Your task to perform on an android device: Open Chrome and go to settings Image 0: 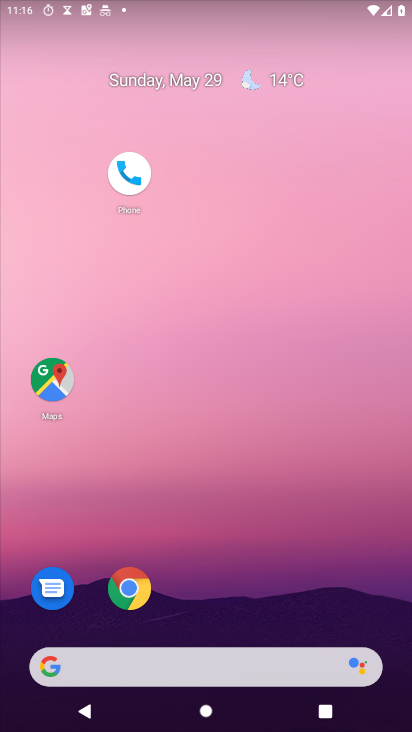
Step 0: drag from (280, 713) to (153, 176)
Your task to perform on an android device: Open Chrome and go to settings Image 1: 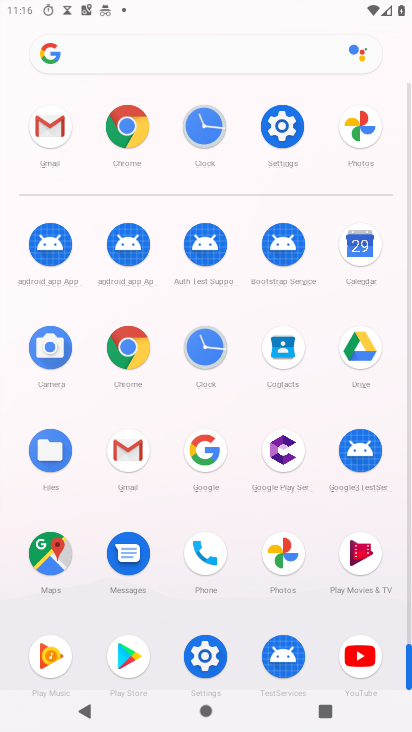
Step 1: click (125, 131)
Your task to perform on an android device: Open Chrome and go to settings Image 2: 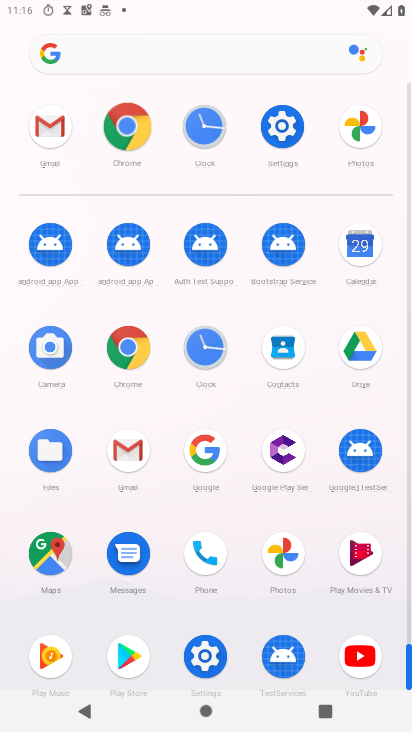
Step 2: click (127, 129)
Your task to perform on an android device: Open Chrome and go to settings Image 3: 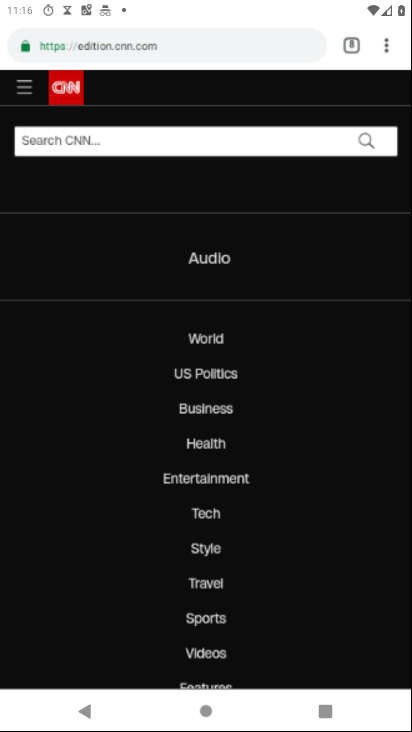
Step 3: click (137, 130)
Your task to perform on an android device: Open Chrome and go to settings Image 4: 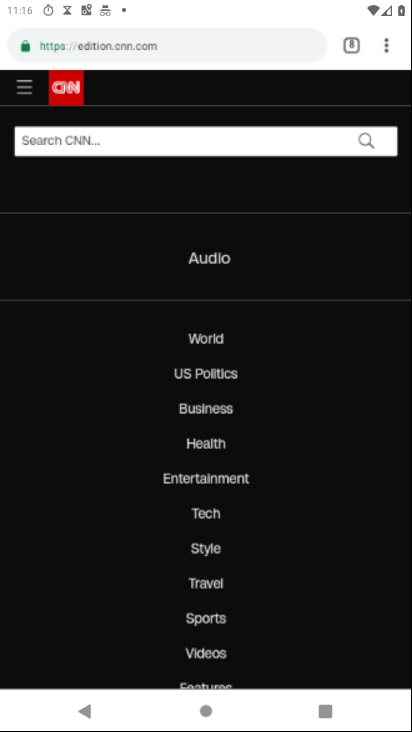
Step 4: click (139, 130)
Your task to perform on an android device: Open Chrome and go to settings Image 5: 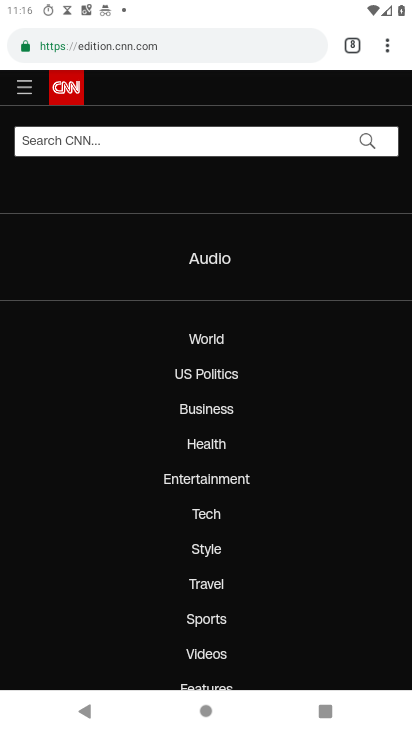
Step 5: click (387, 51)
Your task to perform on an android device: Open Chrome and go to settings Image 6: 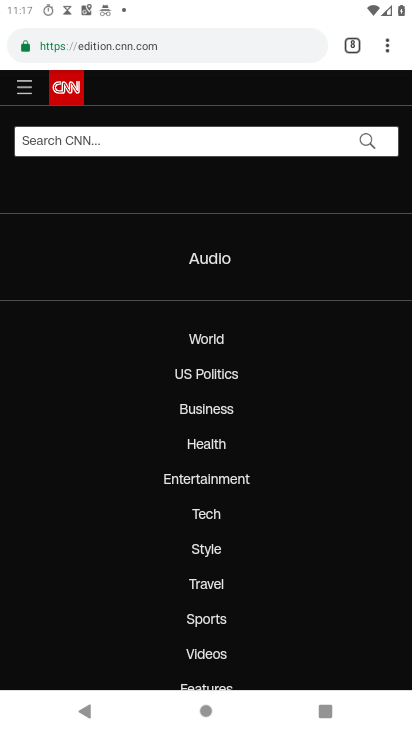
Step 6: click (386, 46)
Your task to perform on an android device: Open Chrome and go to settings Image 7: 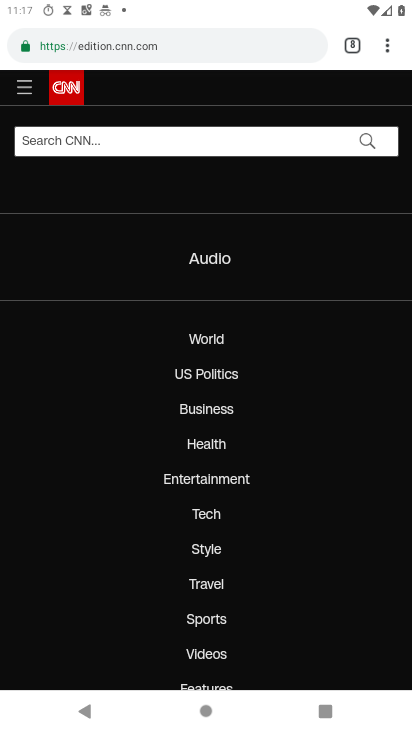
Step 7: click (386, 46)
Your task to perform on an android device: Open Chrome and go to settings Image 8: 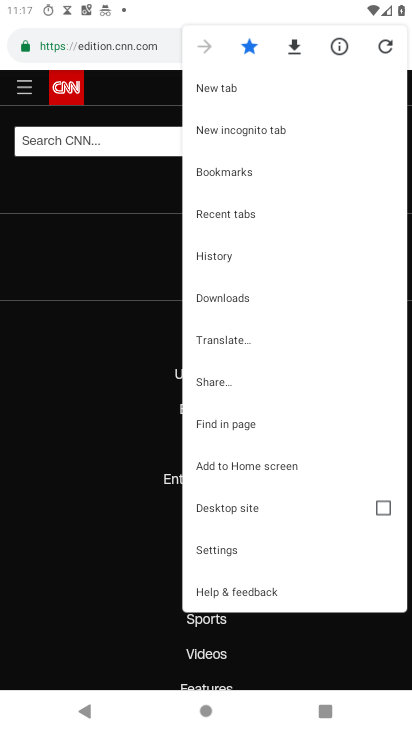
Step 8: click (387, 45)
Your task to perform on an android device: Open Chrome and go to settings Image 9: 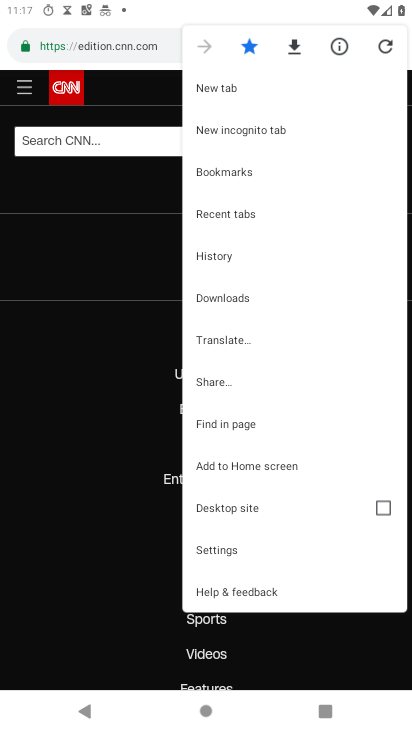
Step 9: click (217, 556)
Your task to perform on an android device: Open Chrome and go to settings Image 10: 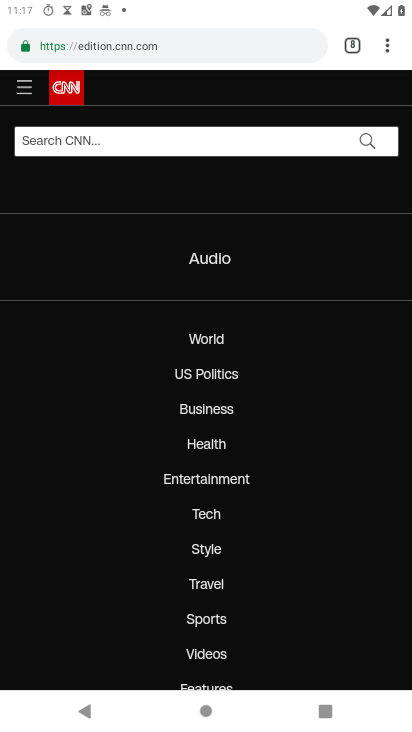
Step 10: click (222, 541)
Your task to perform on an android device: Open Chrome and go to settings Image 11: 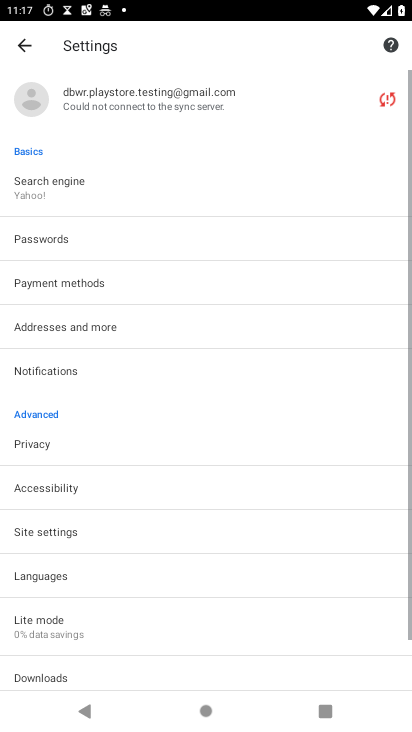
Step 11: click (222, 541)
Your task to perform on an android device: Open Chrome and go to settings Image 12: 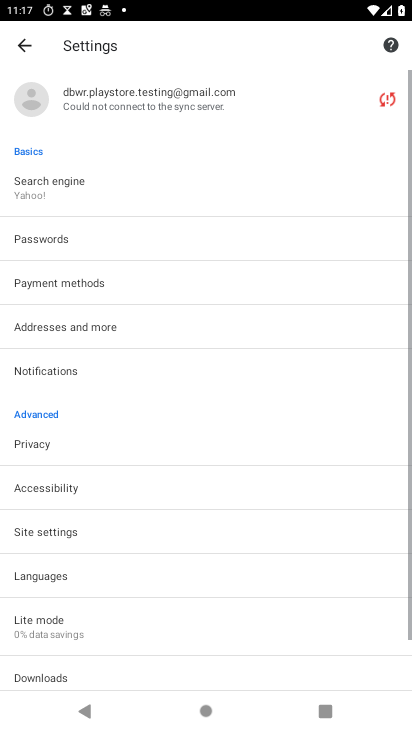
Step 12: click (223, 541)
Your task to perform on an android device: Open Chrome and go to settings Image 13: 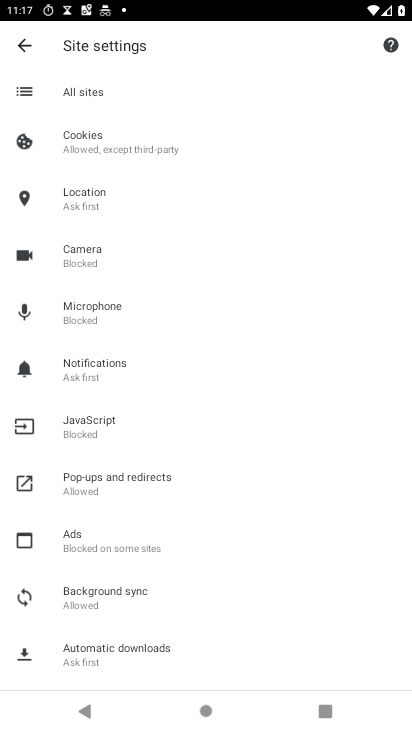
Step 13: drag from (120, 594) to (76, 186)
Your task to perform on an android device: Open Chrome and go to settings Image 14: 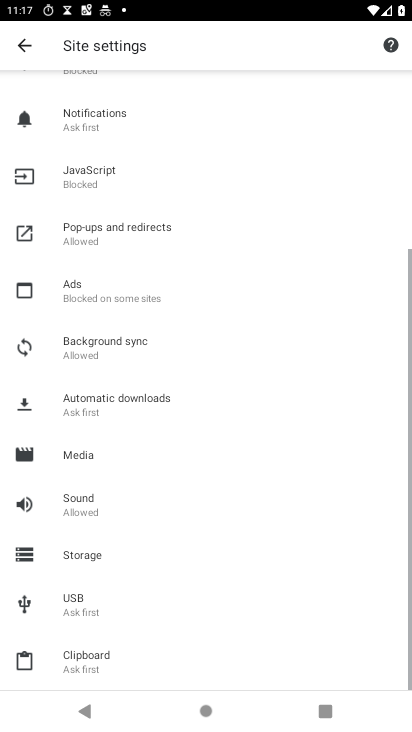
Step 14: drag from (172, 536) to (117, 153)
Your task to perform on an android device: Open Chrome and go to settings Image 15: 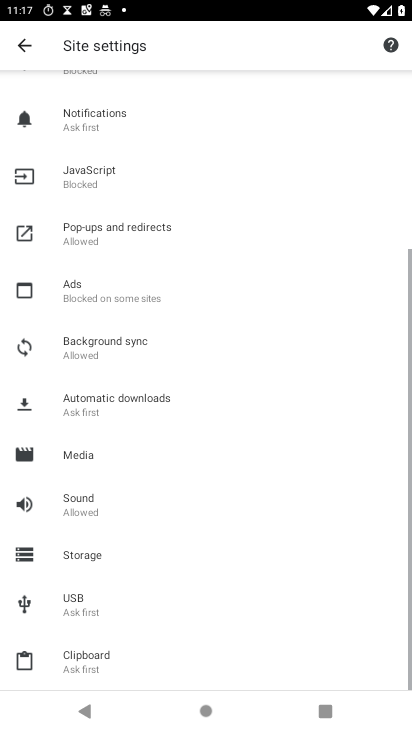
Step 15: drag from (136, 525) to (37, 222)
Your task to perform on an android device: Open Chrome and go to settings Image 16: 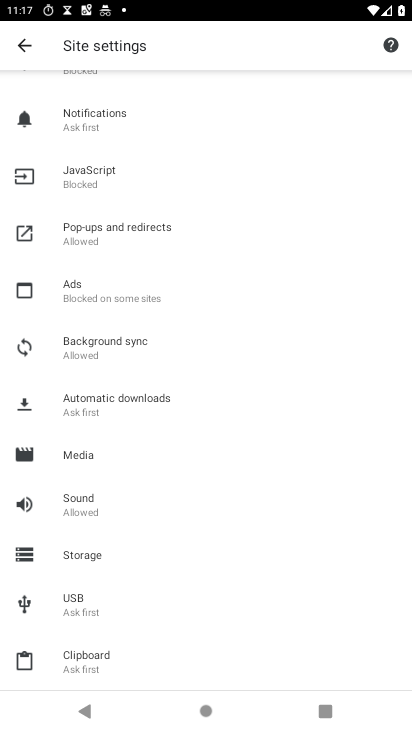
Step 16: drag from (113, 377) to (156, 574)
Your task to perform on an android device: Open Chrome and go to settings Image 17: 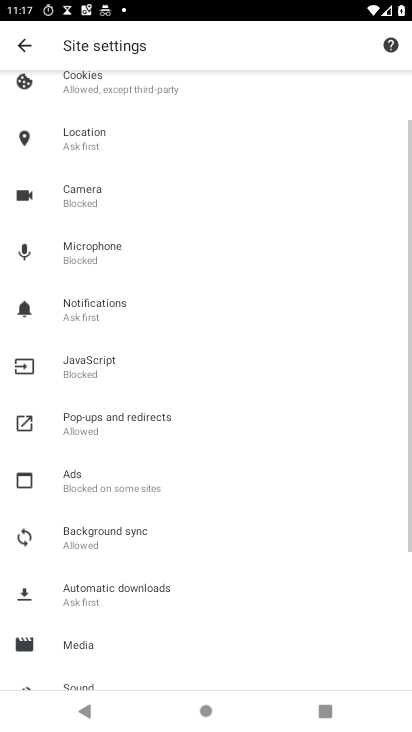
Step 17: click (116, 621)
Your task to perform on an android device: Open Chrome and go to settings Image 18: 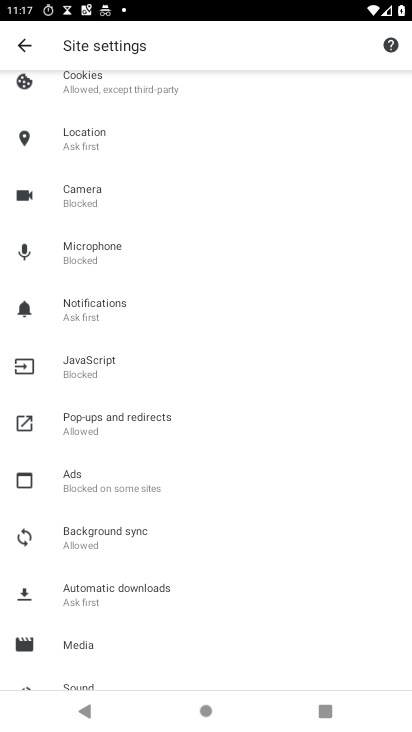
Step 18: drag from (131, 530) to (127, 641)
Your task to perform on an android device: Open Chrome and go to settings Image 19: 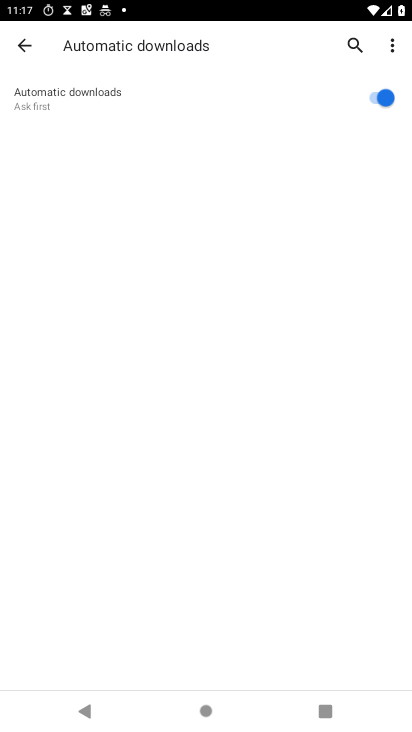
Step 19: drag from (62, 328) to (153, 689)
Your task to perform on an android device: Open Chrome and go to settings Image 20: 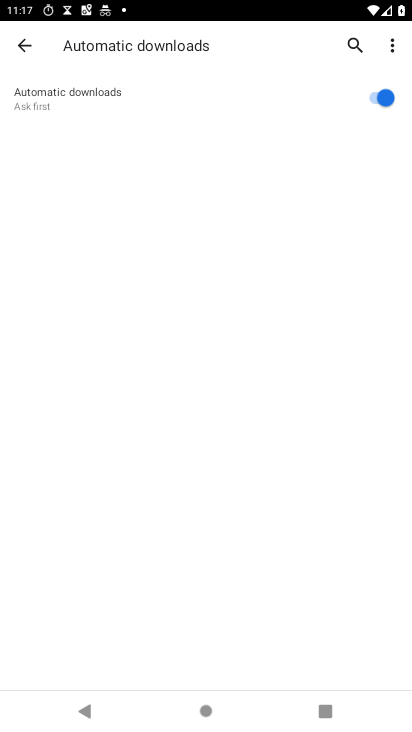
Step 20: click (28, 35)
Your task to perform on an android device: Open Chrome and go to settings Image 21: 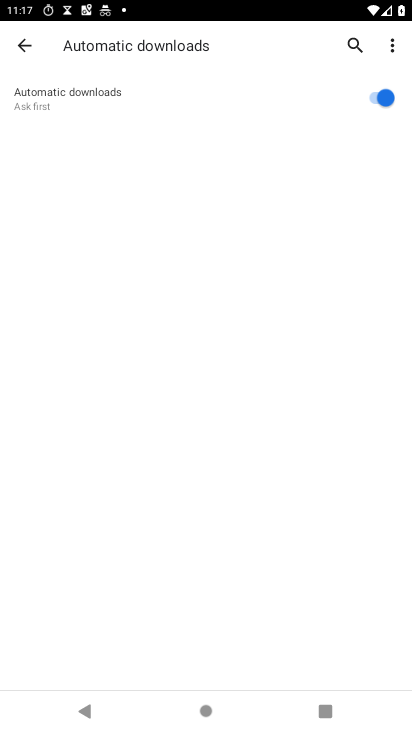
Step 21: click (30, 36)
Your task to perform on an android device: Open Chrome and go to settings Image 22: 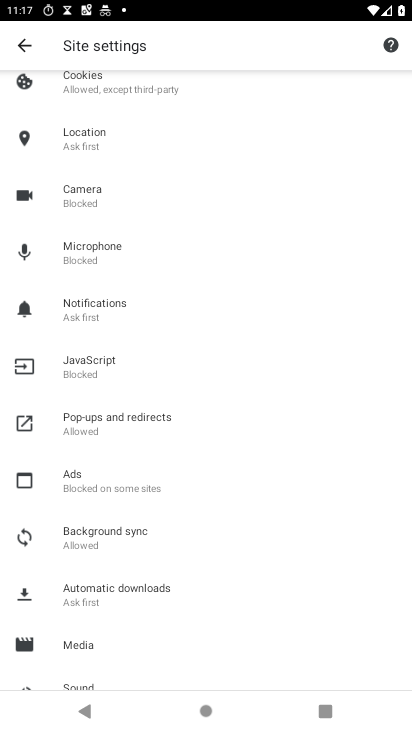
Step 22: task complete